Your task to perform on an android device: open chrome and create a bookmark for the current page Image 0: 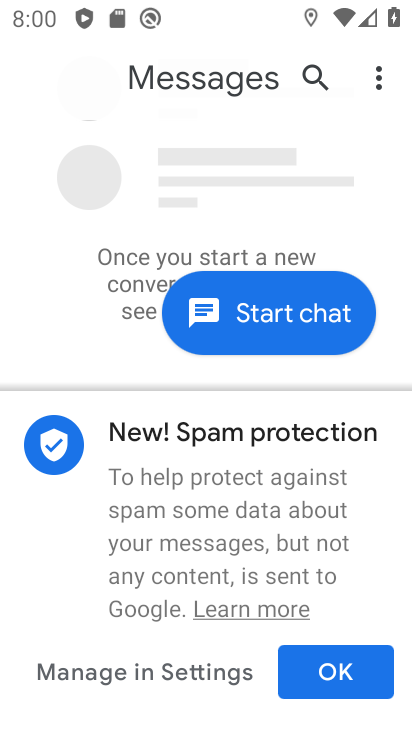
Step 0: click (154, 692)
Your task to perform on an android device: open chrome and create a bookmark for the current page Image 1: 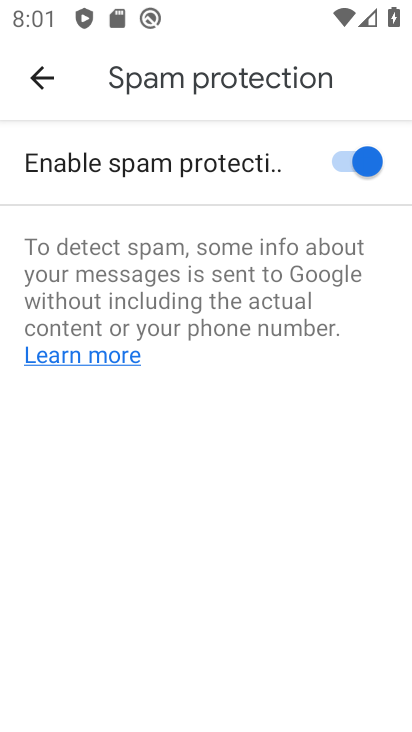
Step 1: press home button
Your task to perform on an android device: open chrome and create a bookmark for the current page Image 2: 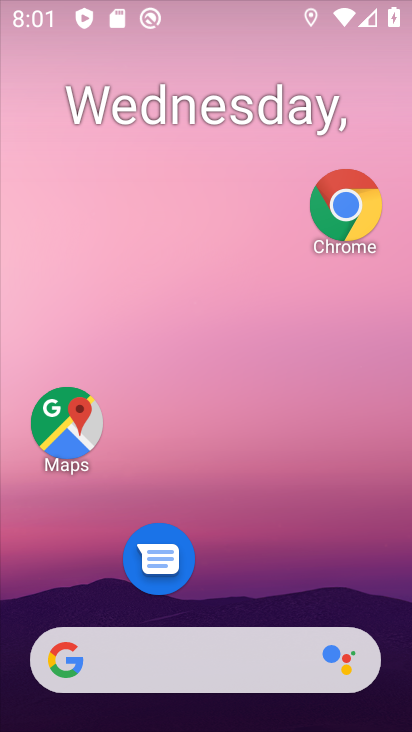
Step 2: drag from (228, 467) to (215, 145)
Your task to perform on an android device: open chrome and create a bookmark for the current page Image 3: 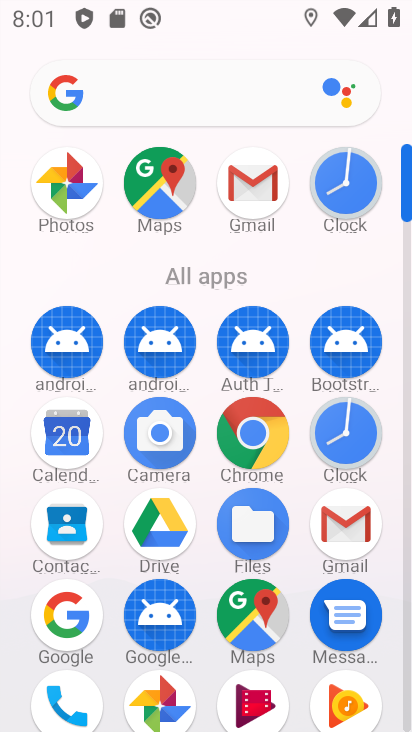
Step 3: click (251, 426)
Your task to perform on an android device: open chrome and create a bookmark for the current page Image 4: 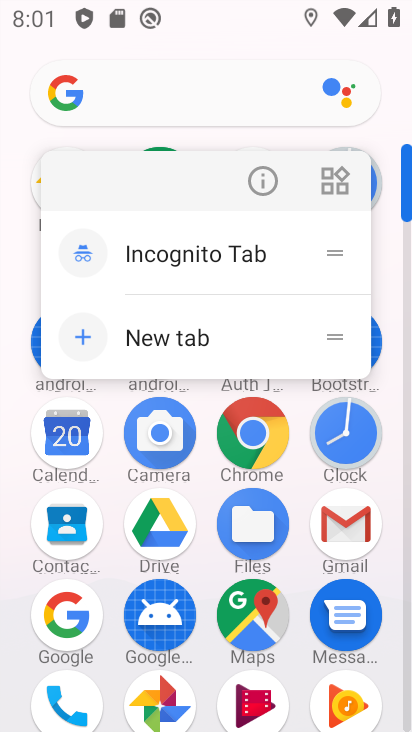
Step 4: click (263, 176)
Your task to perform on an android device: open chrome and create a bookmark for the current page Image 5: 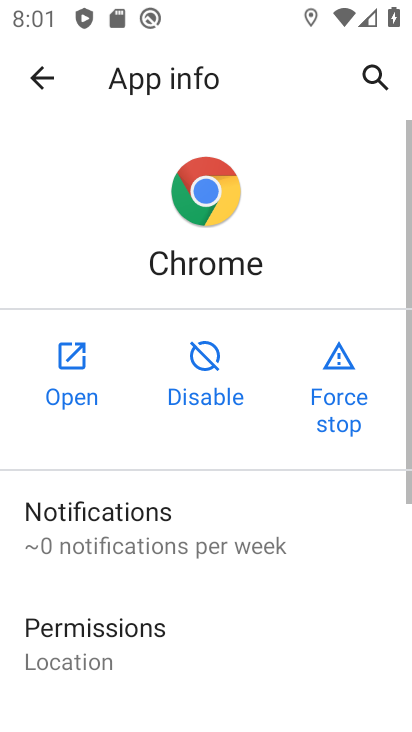
Step 5: click (64, 374)
Your task to perform on an android device: open chrome and create a bookmark for the current page Image 6: 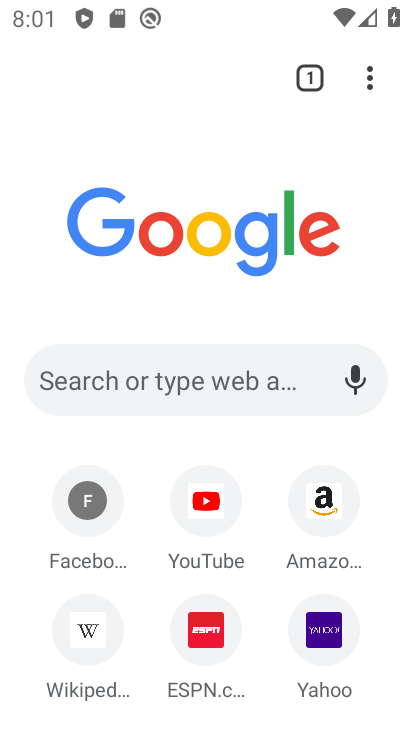
Step 6: drag from (363, 72) to (33, 43)
Your task to perform on an android device: open chrome and create a bookmark for the current page Image 7: 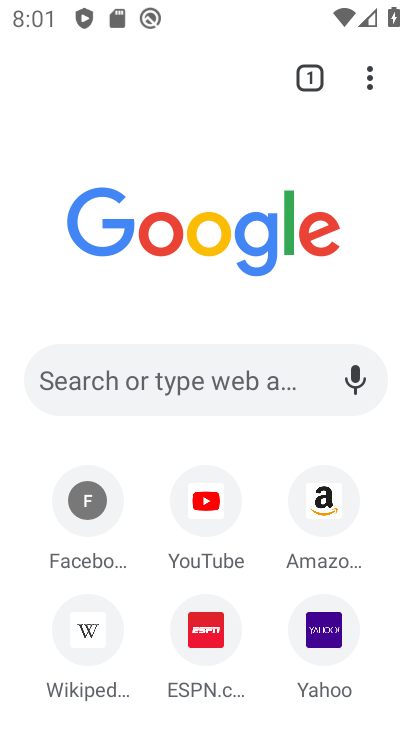
Step 7: click (96, 512)
Your task to perform on an android device: open chrome and create a bookmark for the current page Image 8: 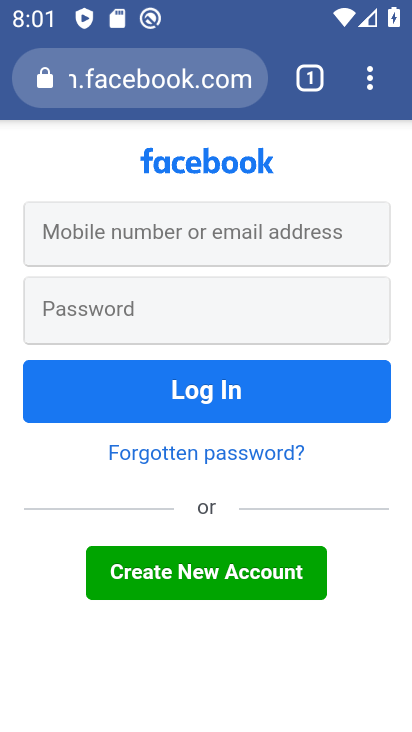
Step 8: task complete